Your task to perform on an android device: toggle notification dots Image 0: 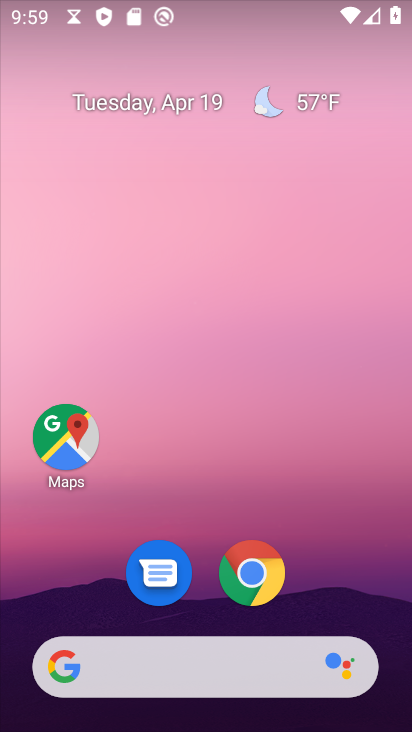
Step 0: drag from (241, 460) to (228, 180)
Your task to perform on an android device: toggle notification dots Image 1: 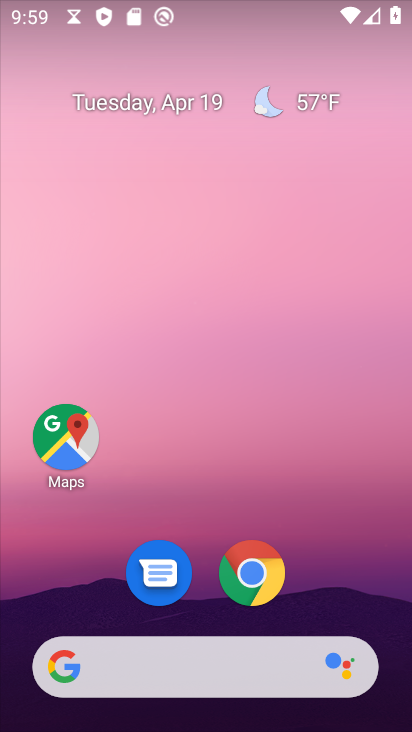
Step 1: drag from (309, 591) to (217, 56)
Your task to perform on an android device: toggle notification dots Image 2: 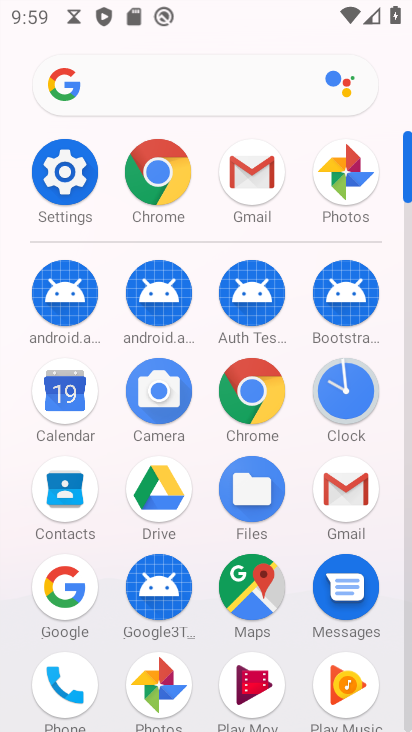
Step 2: click (69, 182)
Your task to perform on an android device: toggle notification dots Image 3: 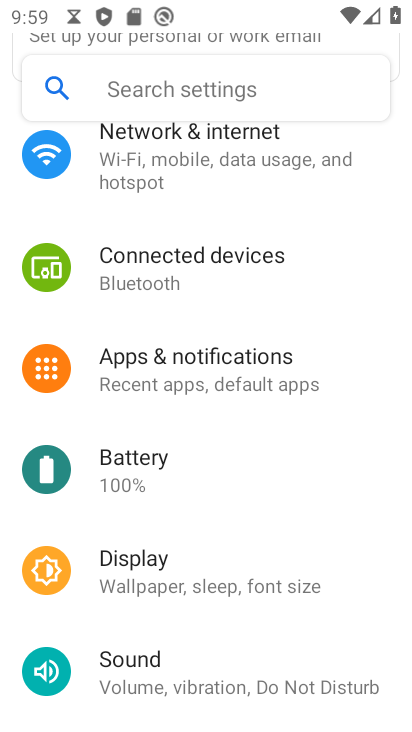
Step 3: click (190, 373)
Your task to perform on an android device: toggle notification dots Image 4: 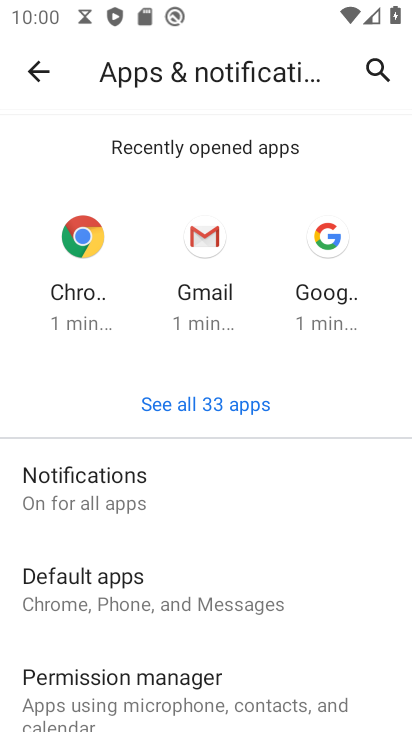
Step 4: click (113, 490)
Your task to perform on an android device: toggle notification dots Image 5: 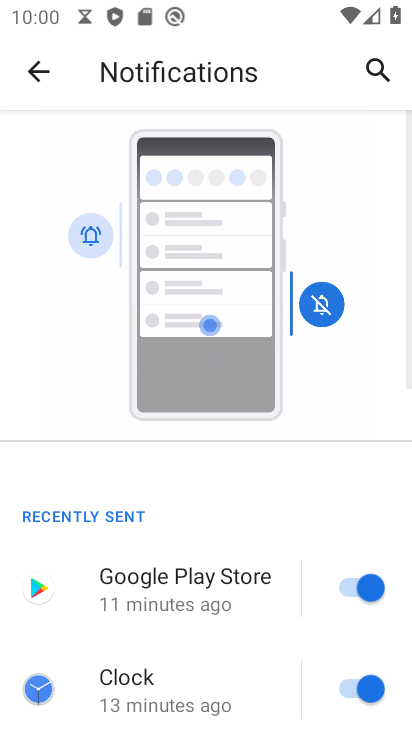
Step 5: drag from (279, 666) to (264, 142)
Your task to perform on an android device: toggle notification dots Image 6: 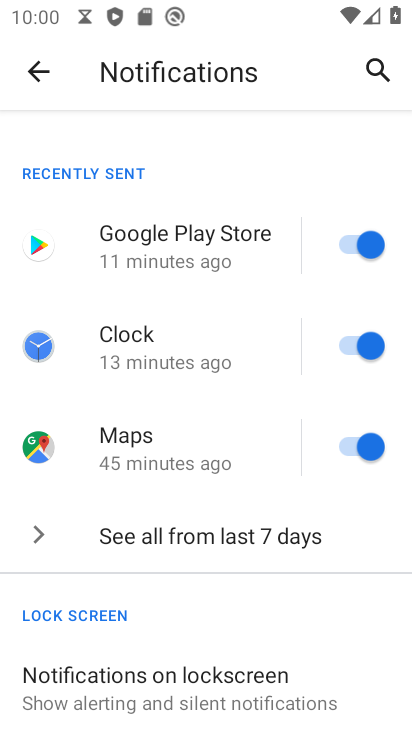
Step 6: drag from (234, 585) to (211, 94)
Your task to perform on an android device: toggle notification dots Image 7: 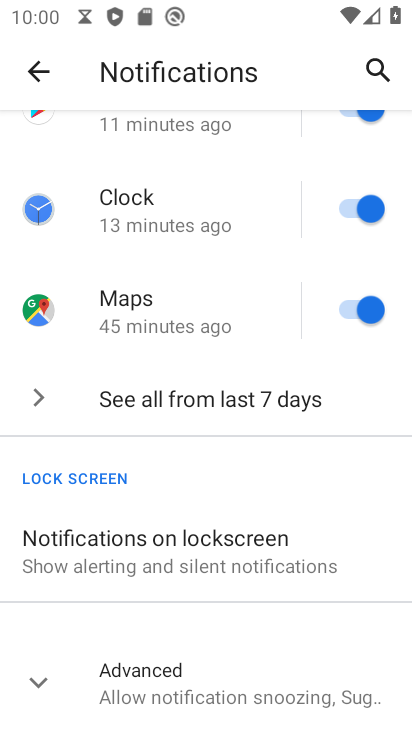
Step 7: click (241, 682)
Your task to perform on an android device: toggle notification dots Image 8: 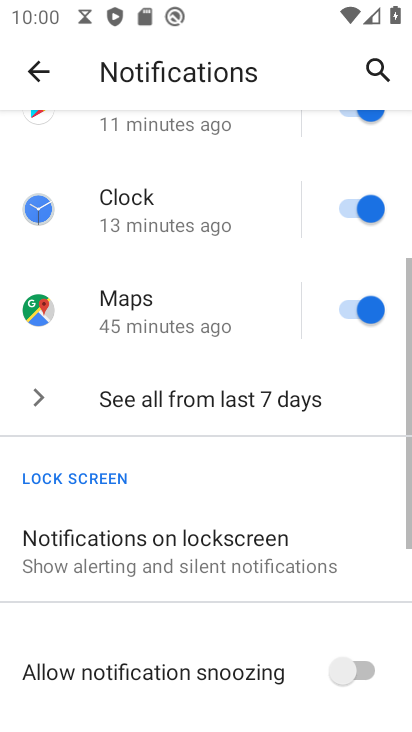
Step 8: drag from (251, 596) to (232, 131)
Your task to perform on an android device: toggle notification dots Image 9: 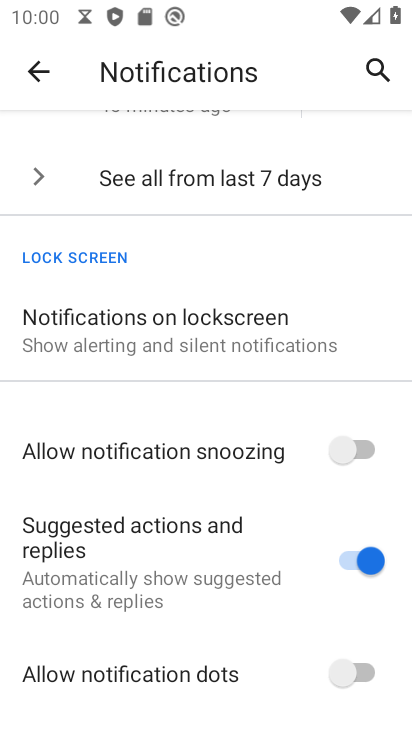
Step 9: click (362, 667)
Your task to perform on an android device: toggle notification dots Image 10: 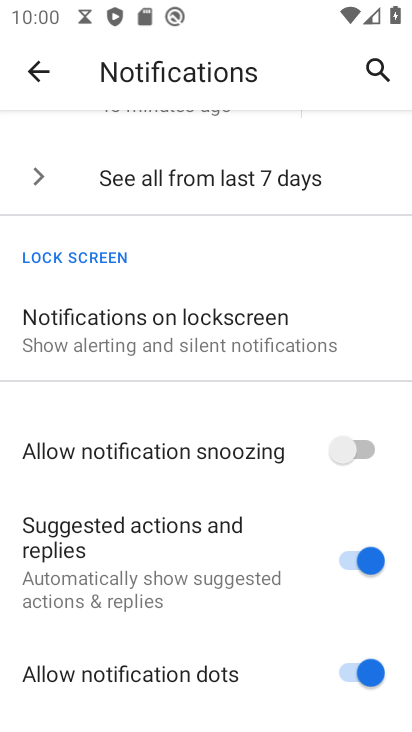
Step 10: task complete